Your task to perform on an android device: add a contact in the contacts app Image 0: 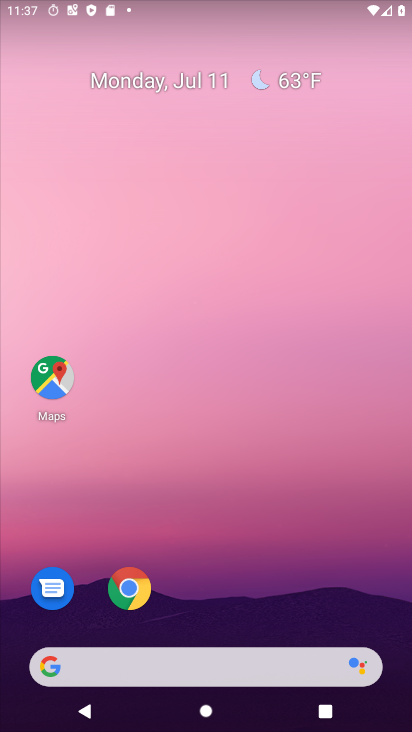
Step 0: drag from (228, 728) to (224, 186)
Your task to perform on an android device: add a contact in the contacts app Image 1: 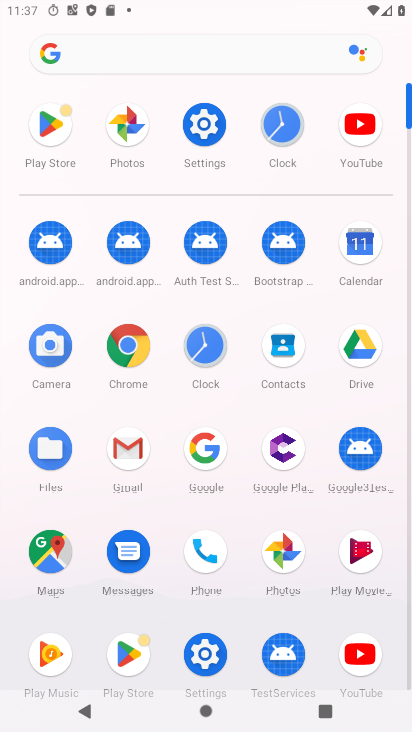
Step 1: click (279, 349)
Your task to perform on an android device: add a contact in the contacts app Image 2: 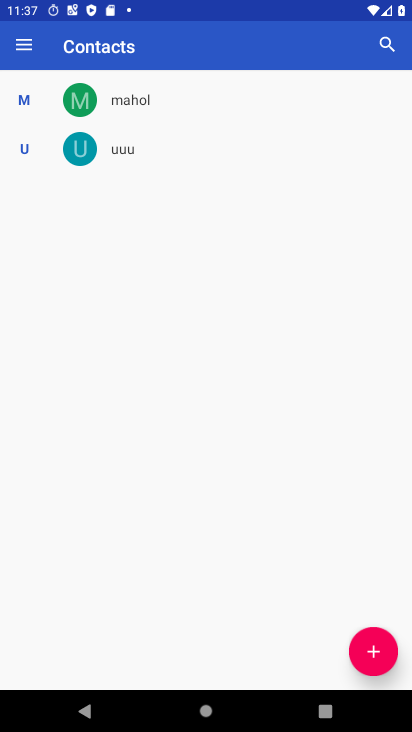
Step 2: click (378, 643)
Your task to perform on an android device: add a contact in the contacts app Image 3: 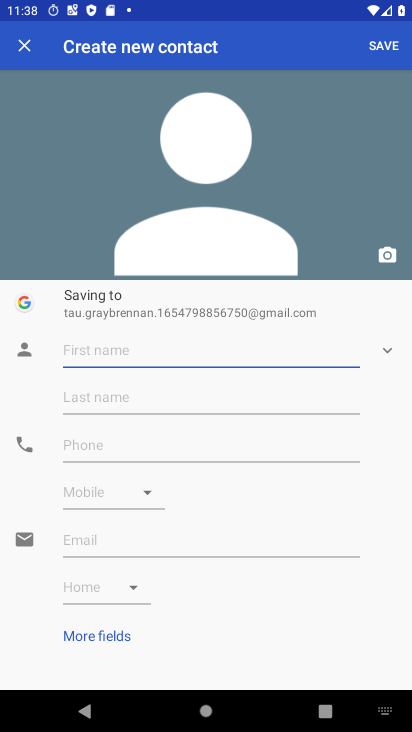
Step 3: type "porus"
Your task to perform on an android device: add a contact in the contacts app Image 4: 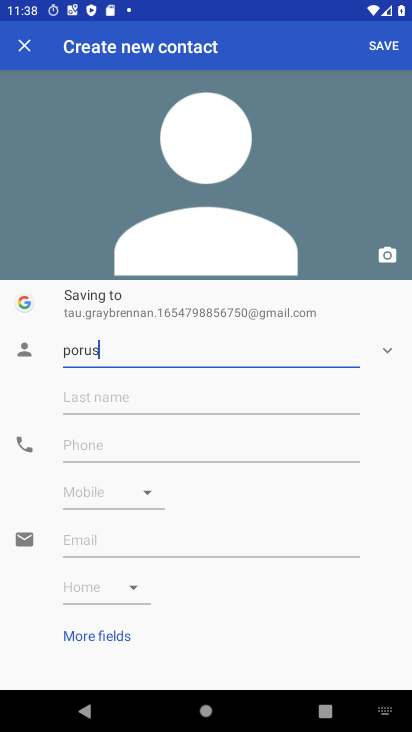
Step 4: click (84, 434)
Your task to perform on an android device: add a contact in the contacts app Image 5: 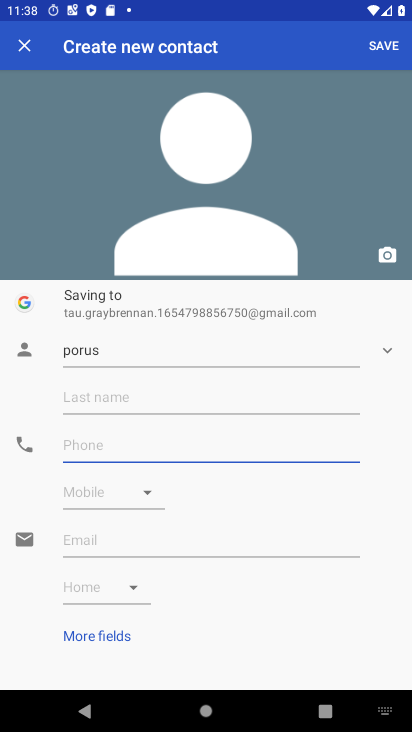
Step 5: type "iuiui87"
Your task to perform on an android device: add a contact in the contacts app Image 6: 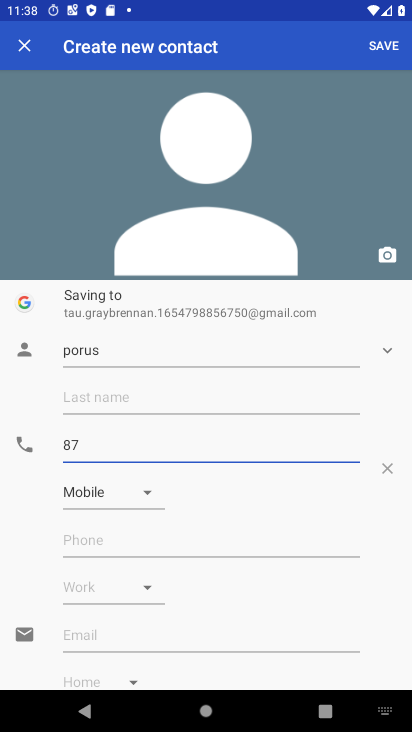
Step 6: click (377, 44)
Your task to perform on an android device: add a contact in the contacts app Image 7: 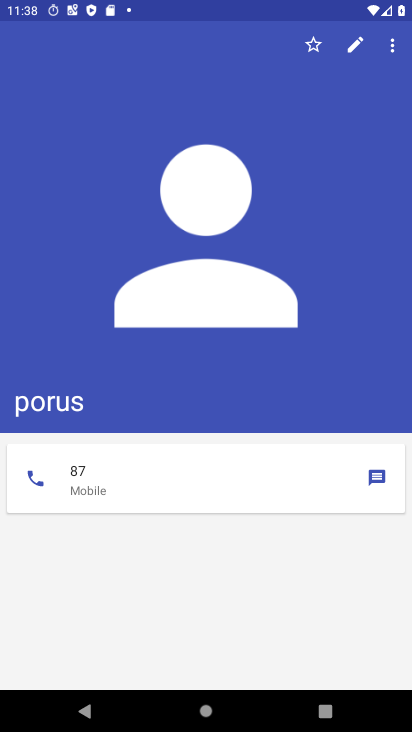
Step 7: task complete